Your task to perform on an android device: Go to calendar. Show me events next week Image 0: 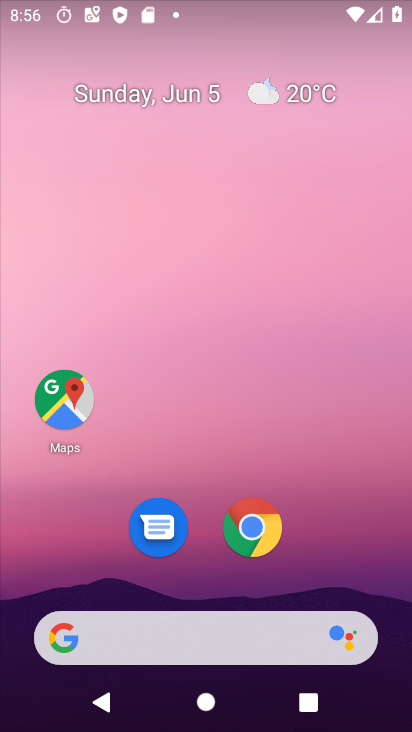
Step 0: drag from (322, 583) to (254, 27)
Your task to perform on an android device: Go to calendar. Show me events next week Image 1: 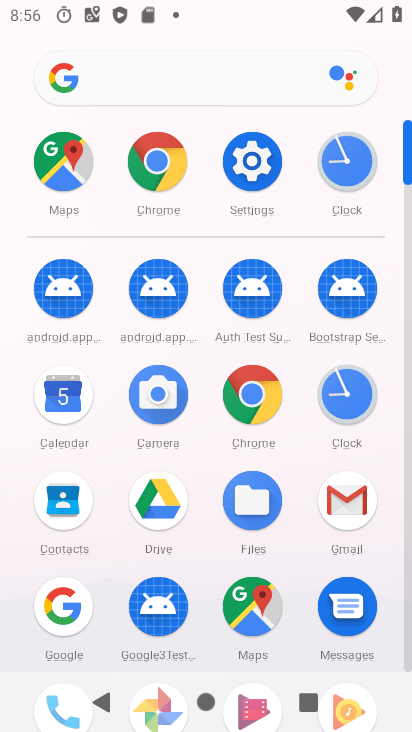
Step 1: click (48, 407)
Your task to perform on an android device: Go to calendar. Show me events next week Image 2: 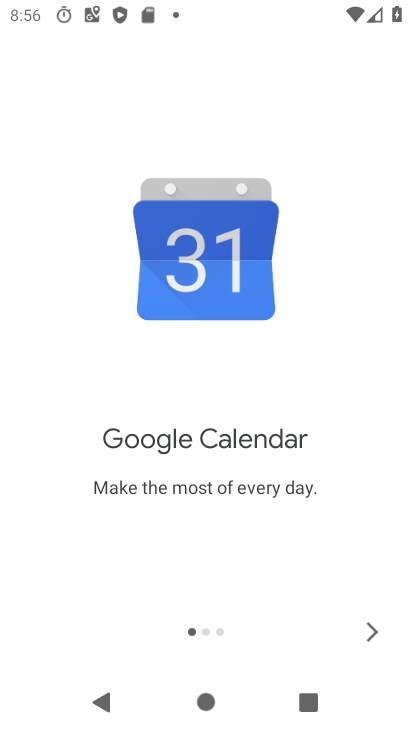
Step 2: click (365, 639)
Your task to perform on an android device: Go to calendar. Show me events next week Image 3: 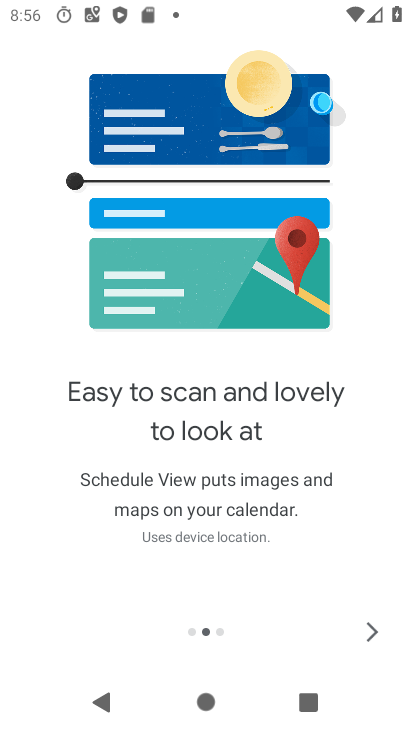
Step 3: click (365, 639)
Your task to perform on an android device: Go to calendar. Show me events next week Image 4: 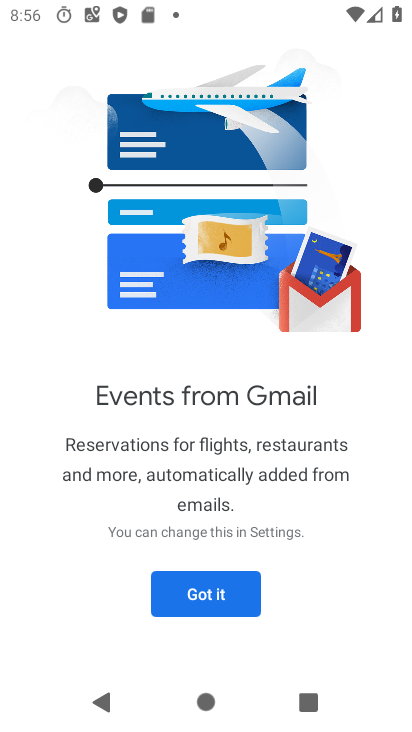
Step 4: click (196, 625)
Your task to perform on an android device: Go to calendar. Show me events next week Image 5: 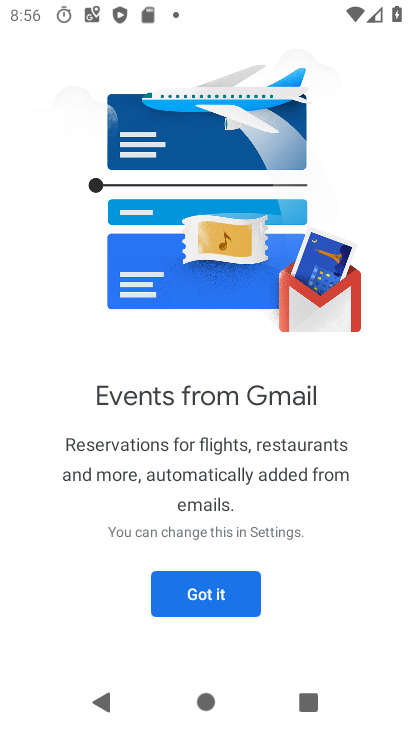
Step 5: click (199, 607)
Your task to perform on an android device: Go to calendar. Show me events next week Image 6: 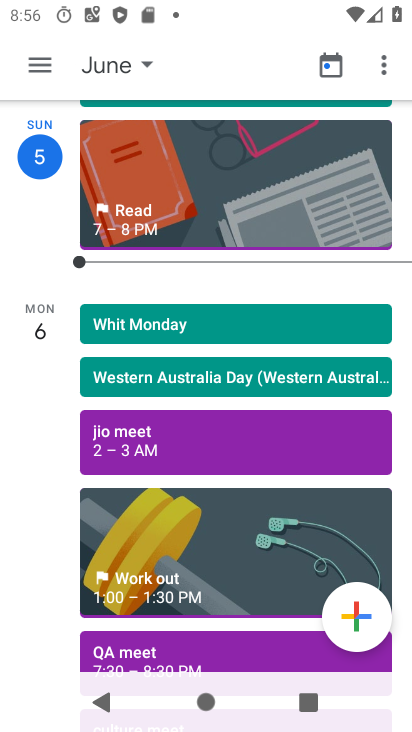
Step 6: click (99, 63)
Your task to perform on an android device: Go to calendar. Show me events next week Image 7: 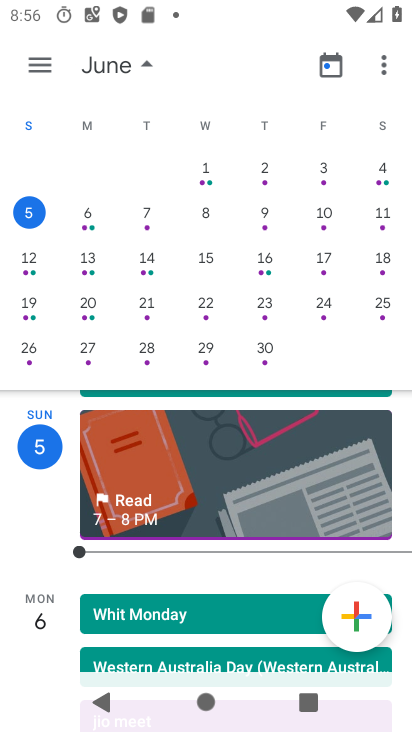
Step 7: click (25, 275)
Your task to perform on an android device: Go to calendar. Show me events next week Image 8: 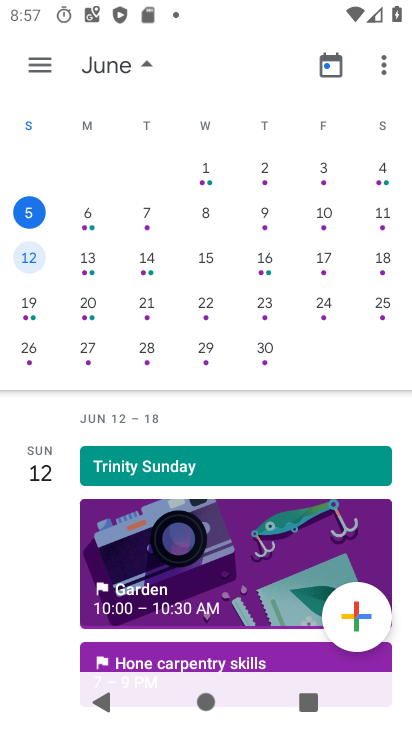
Step 8: task complete